Your task to perform on an android device: When is my next appointment? Image 0: 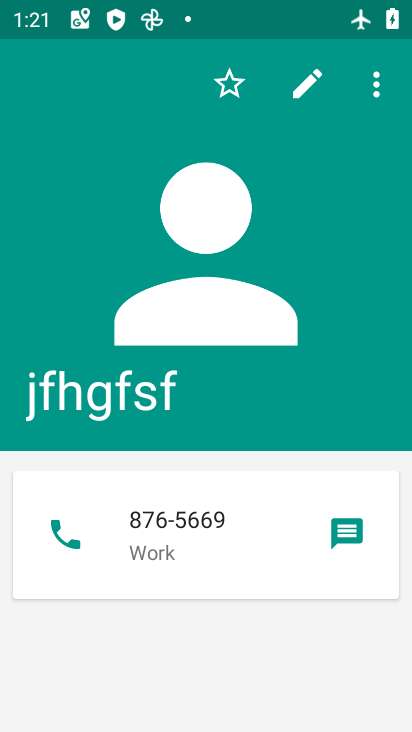
Step 0: press home button
Your task to perform on an android device: When is my next appointment? Image 1: 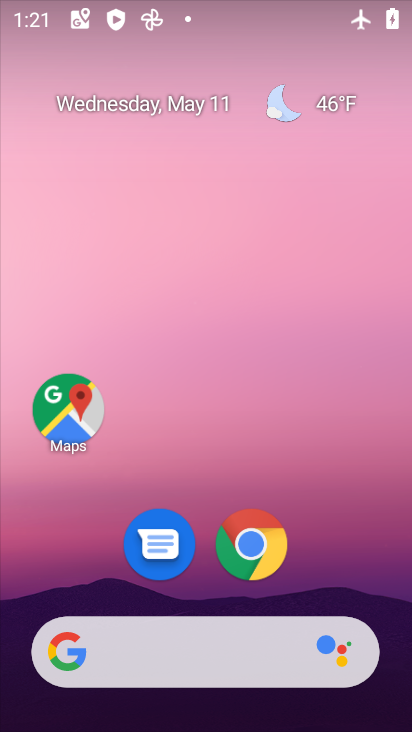
Step 1: drag from (398, 607) to (305, 93)
Your task to perform on an android device: When is my next appointment? Image 2: 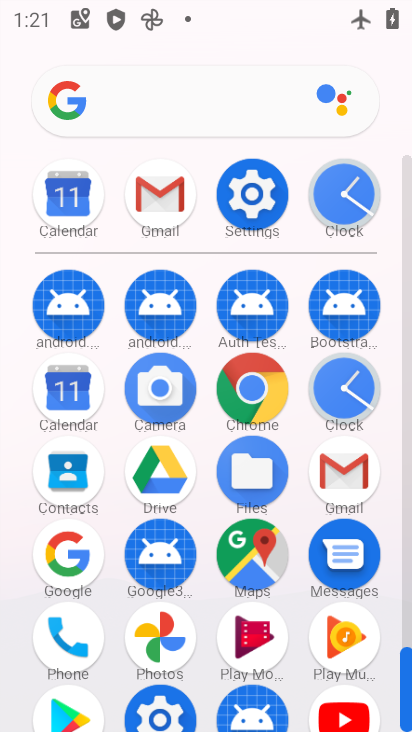
Step 2: click (65, 388)
Your task to perform on an android device: When is my next appointment? Image 3: 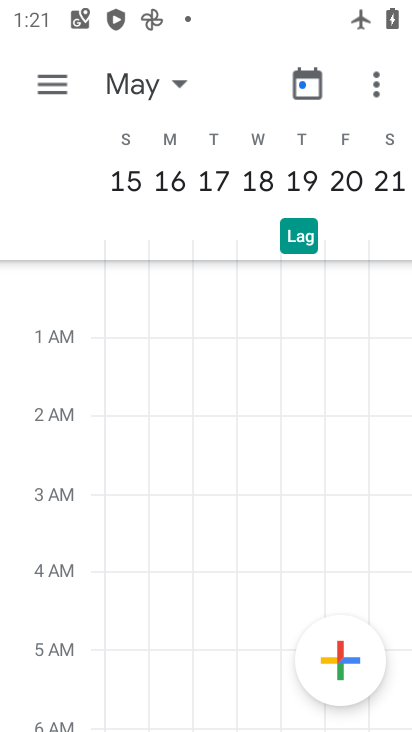
Step 3: click (54, 75)
Your task to perform on an android device: When is my next appointment? Image 4: 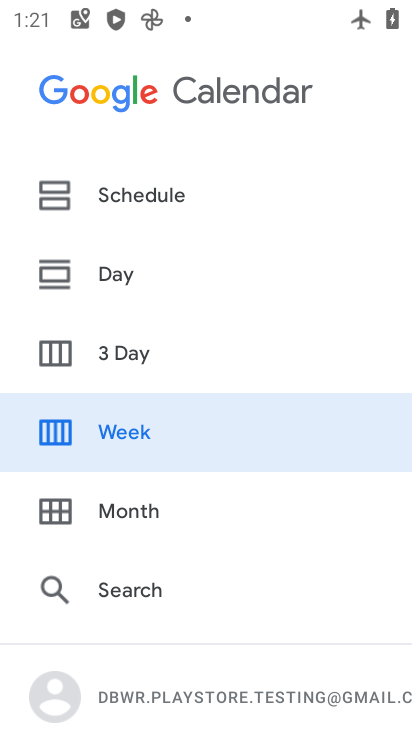
Step 4: click (128, 196)
Your task to perform on an android device: When is my next appointment? Image 5: 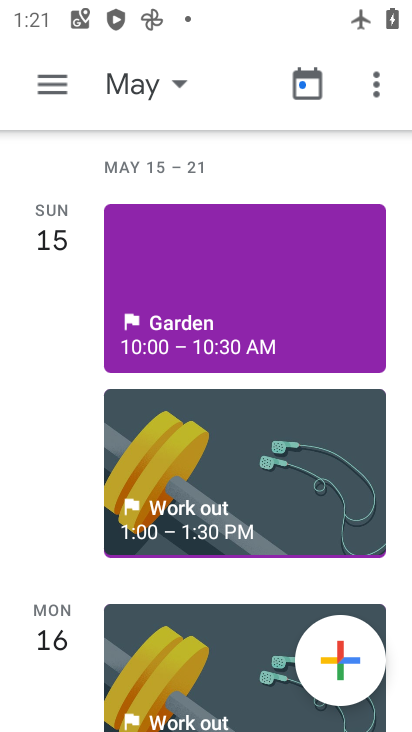
Step 5: drag from (204, 670) to (264, 210)
Your task to perform on an android device: When is my next appointment? Image 6: 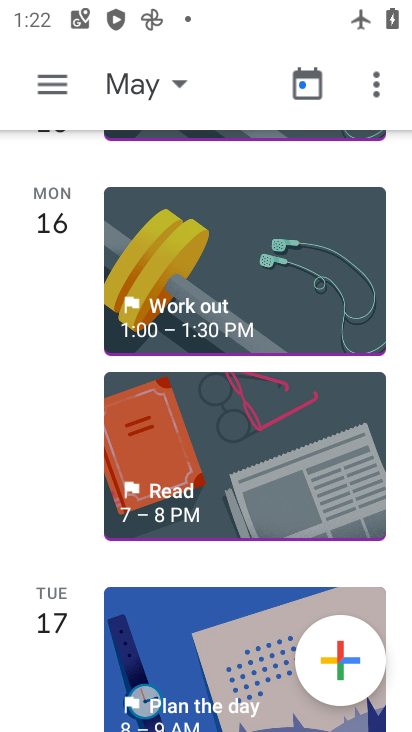
Step 6: drag from (237, 566) to (242, 179)
Your task to perform on an android device: When is my next appointment? Image 7: 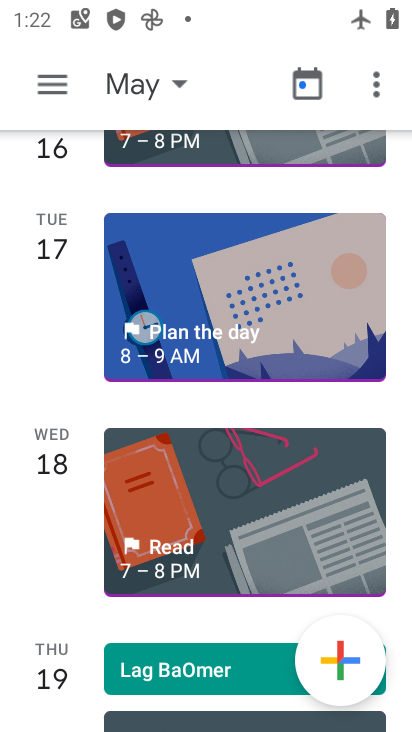
Step 7: drag from (247, 621) to (251, 196)
Your task to perform on an android device: When is my next appointment? Image 8: 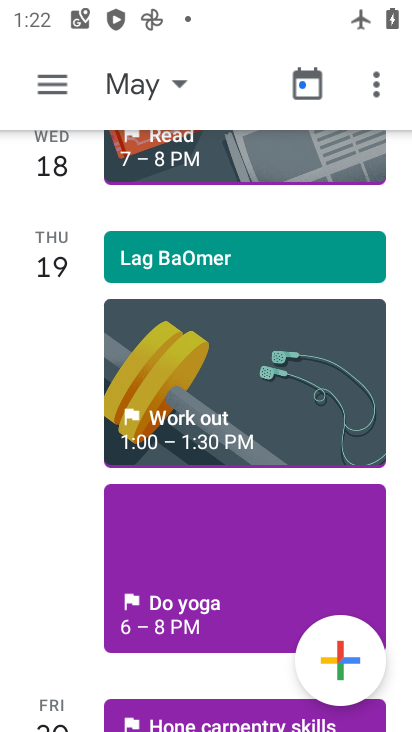
Step 8: click (223, 651)
Your task to perform on an android device: When is my next appointment? Image 9: 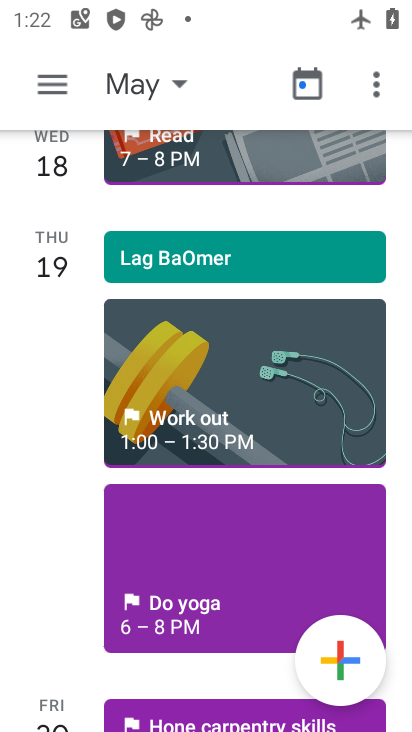
Step 9: task complete